Your task to perform on an android device: View the shopping cart on walmart. Add "bose quietcomfort 35" to the cart on walmart, then select checkout. Image 0: 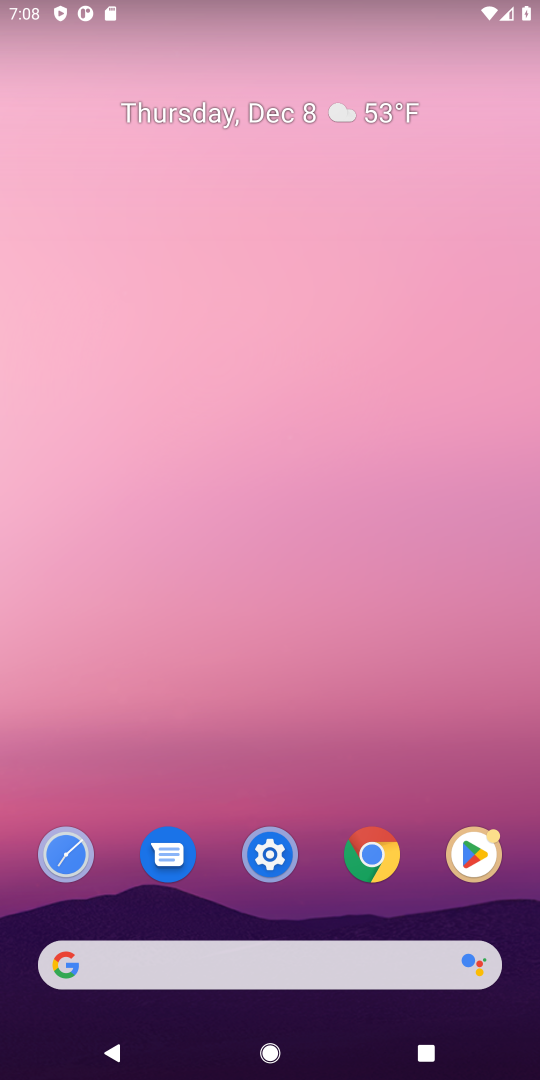
Step 0: press home button
Your task to perform on an android device: View the shopping cart on walmart. Add "bose quietcomfort 35" to the cart on walmart, then select checkout. Image 1: 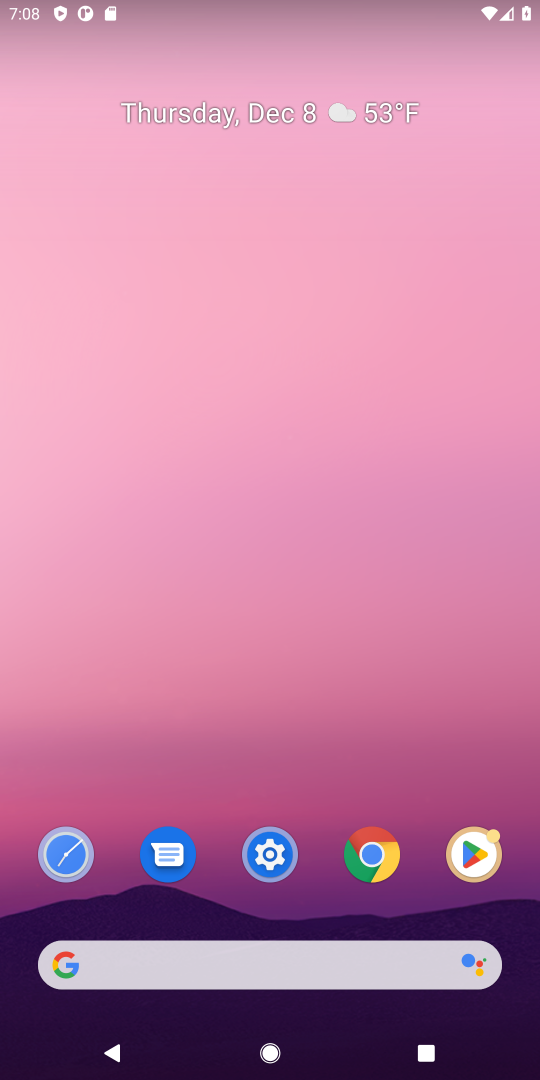
Step 1: click (107, 959)
Your task to perform on an android device: View the shopping cart on walmart. Add "bose quietcomfort 35" to the cart on walmart, then select checkout. Image 2: 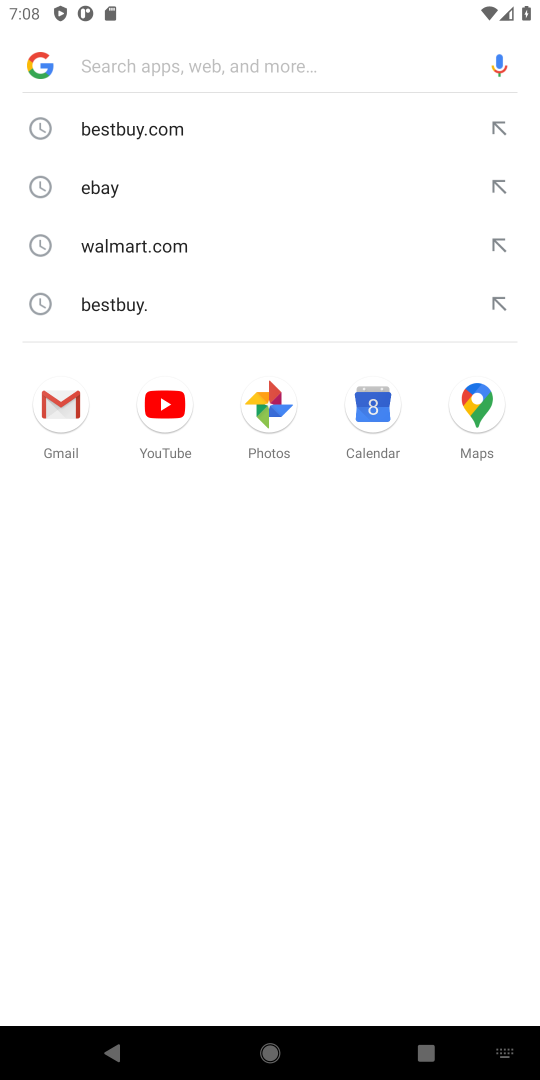
Step 2: type "walmart"
Your task to perform on an android device: View the shopping cart on walmart. Add "bose quietcomfort 35" to the cart on walmart, then select checkout. Image 3: 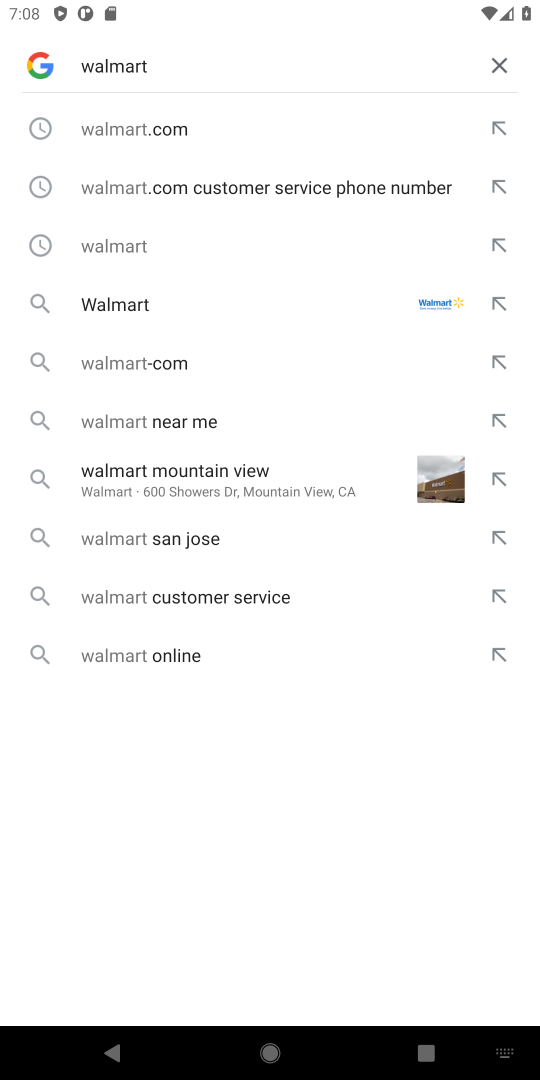
Step 3: press enter
Your task to perform on an android device: View the shopping cart on walmart. Add "bose quietcomfort 35" to the cart on walmart, then select checkout. Image 4: 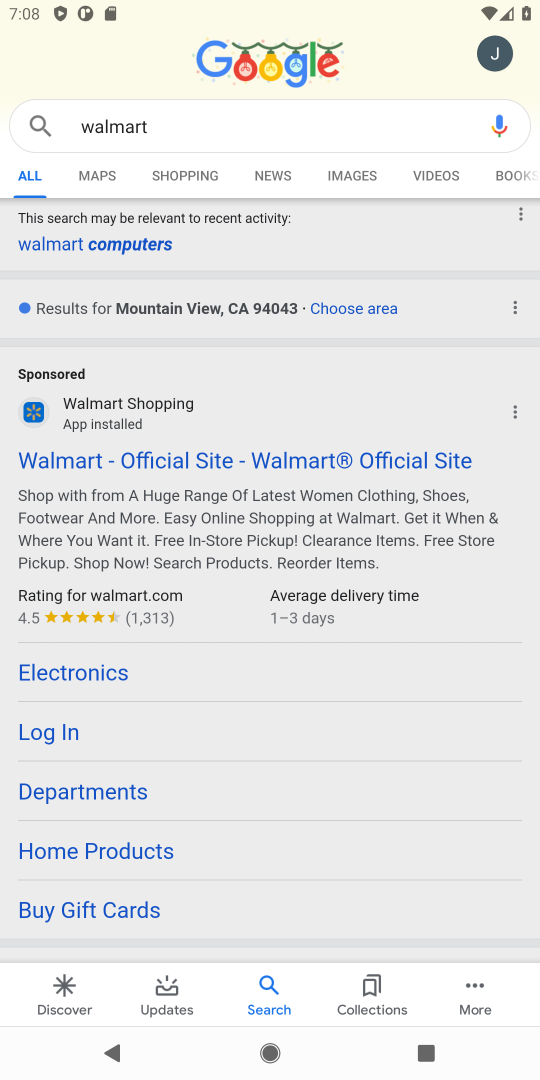
Step 4: click (400, 460)
Your task to perform on an android device: View the shopping cart on walmart. Add "bose quietcomfort 35" to the cart on walmart, then select checkout. Image 5: 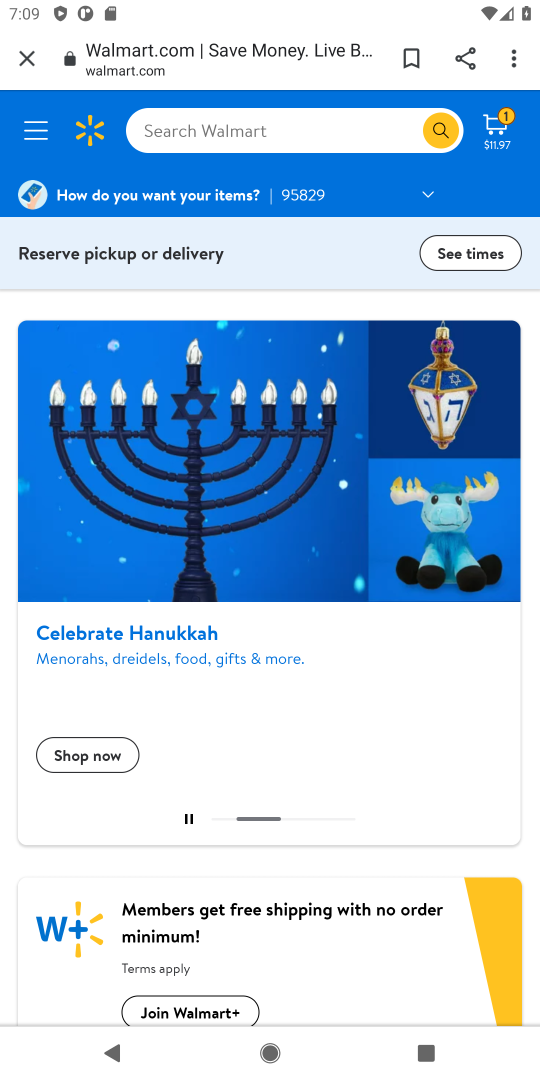
Step 5: click (493, 118)
Your task to perform on an android device: View the shopping cart on walmart. Add "bose quietcomfort 35" to the cart on walmart, then select checkout. Image 6: 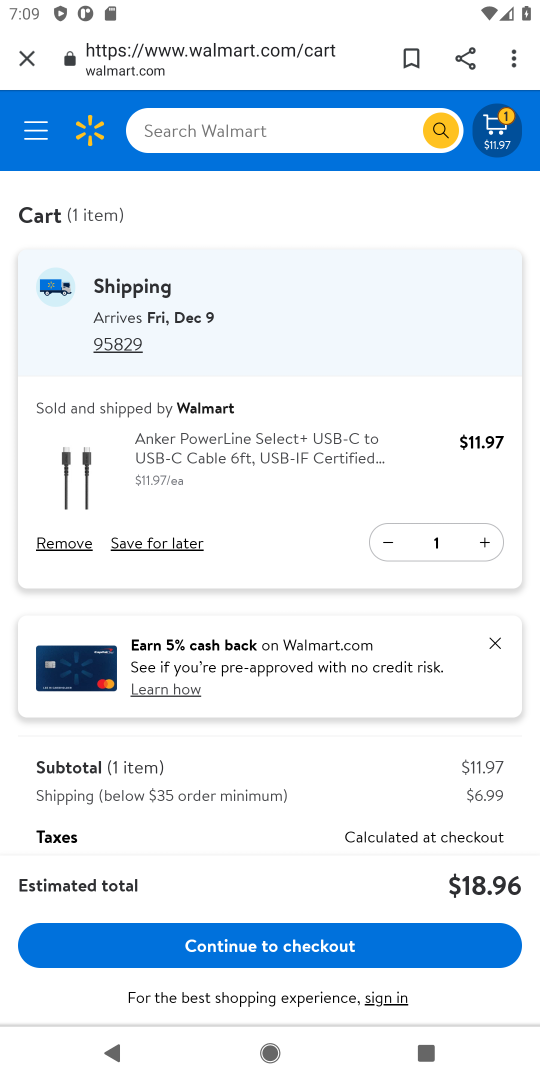
Step 6: click (167, 119)
Your task to perform on an android device: View the shopping cart on walmart. Add "bose quietcomfort 35" to the cart on walmart, then select checkout. Image 7: 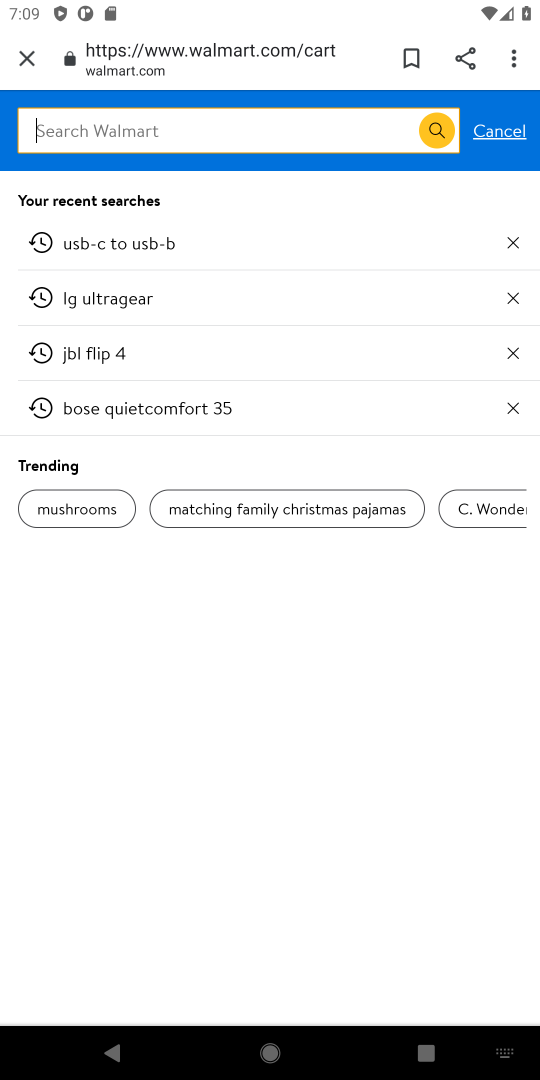
Step 7: type "bose quietcomfort 35"
Your task to perform on an android device: View the shopping cart on walmart. Add "bose quietcomfort 35" to the cart on walmart, then select checkout. Image 8: 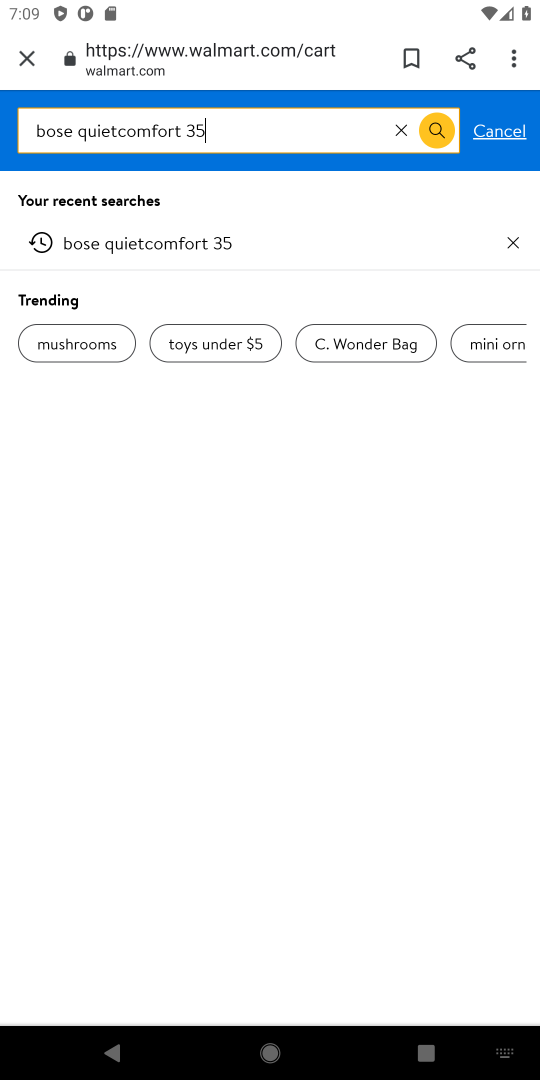
Step 8: press enter
Your task to perform on an android device: View the shopping cart on walmart. Add "bose quietcomfort 35" to the cart on walmart, then select checkout. Image 9: 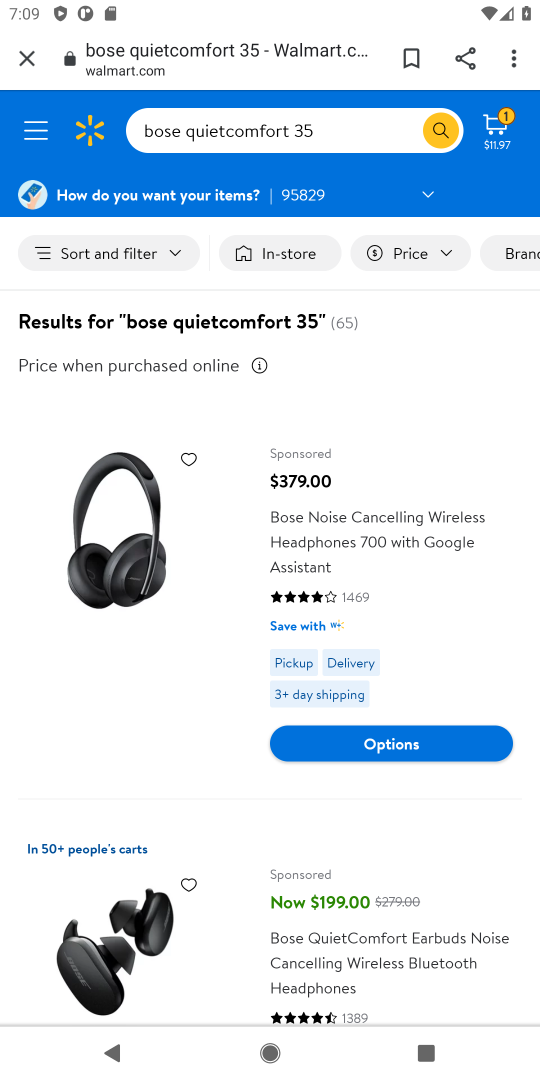
Step 9: drag from (454, 912) to (450, 450)
Your task to perform on an android device: View the shopping cart on walmart. Add "bose quietcomfort 35" to the cart on walmart, then select checkout. Image 10: 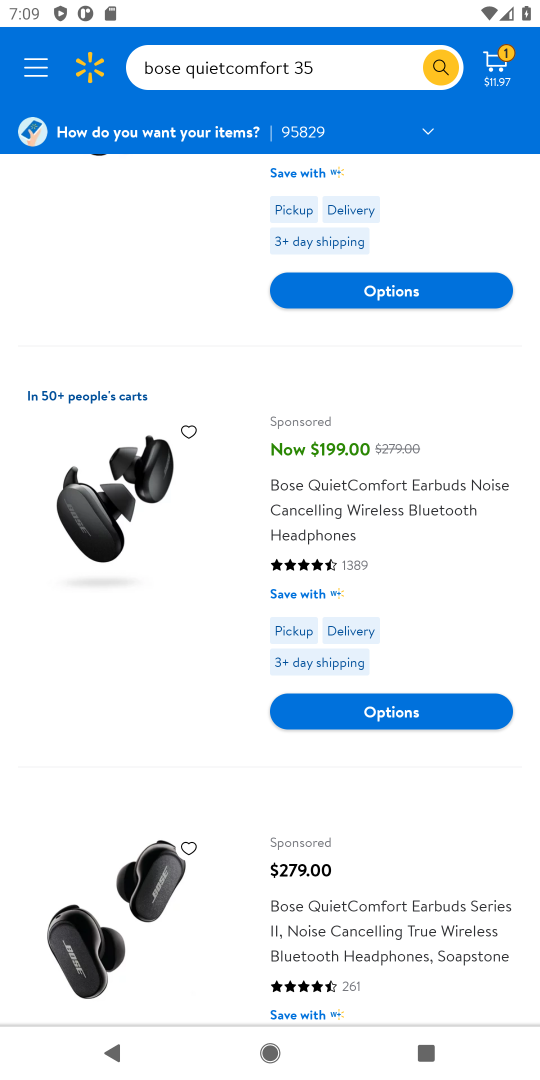
Step 10: drag from (436, 955) to (464, 378)
Your task to perform on an android device: View the shopping cart on walmart. Add "bose quietcomfort 35" to the cart on walmart, then select checkout. Image 11: 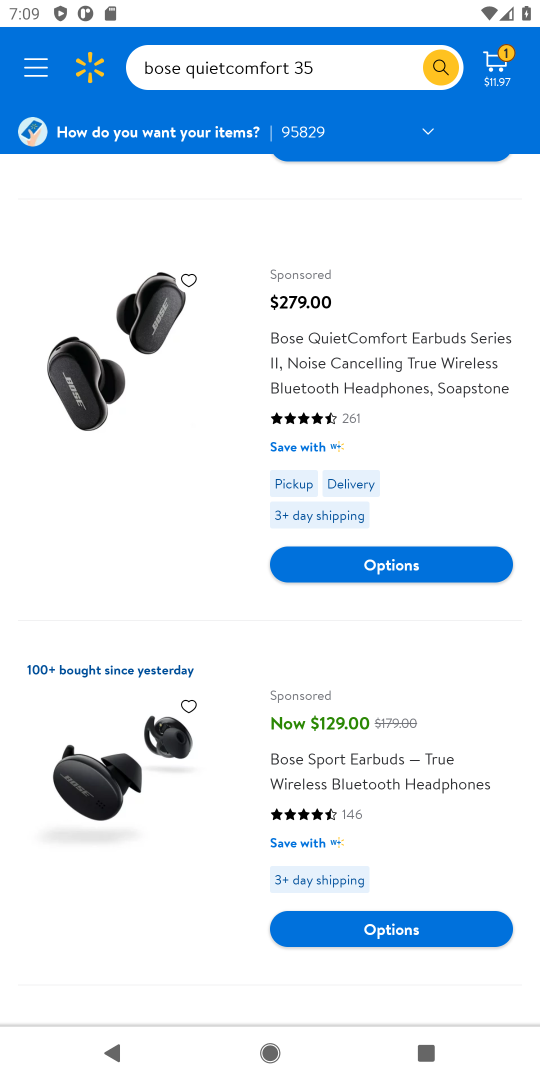
Step 11: drag from (399, 829) to (447, 284)
Your task to perform on an android device: View the shopping cart on walmart. Add "bose quietcomfort 35" to the cart on walmart, then select checkout. Image 12: 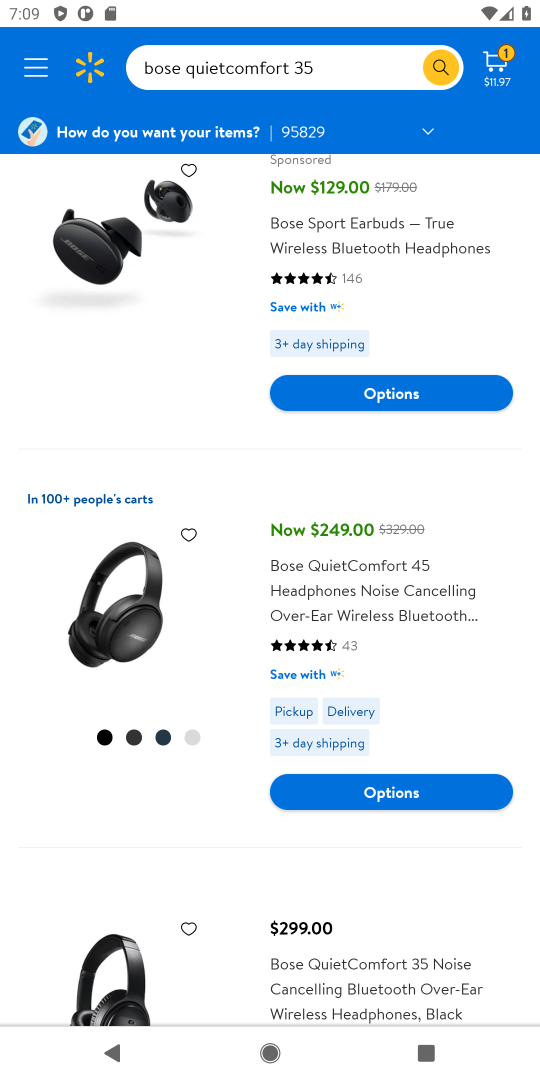
Step 12: drag from (375, 908) to (447, 485)
Your task to perform on an android device: View the shopping cart on walmart. Add "bose quietcomfort 35" to the cart on walmart, then select checkout. Image 13: 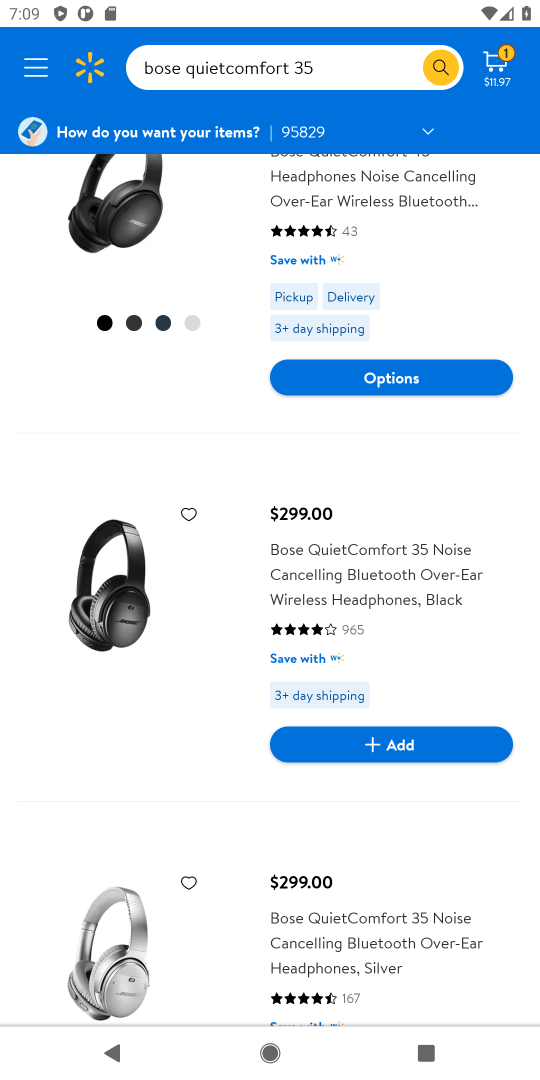
Step 13: click (379, 751)
Your task to perform on an android device: View the shopping cart on walmart. Add "bose quietcomfort 35" to the cart on walmart, then select checkout. Image 14: 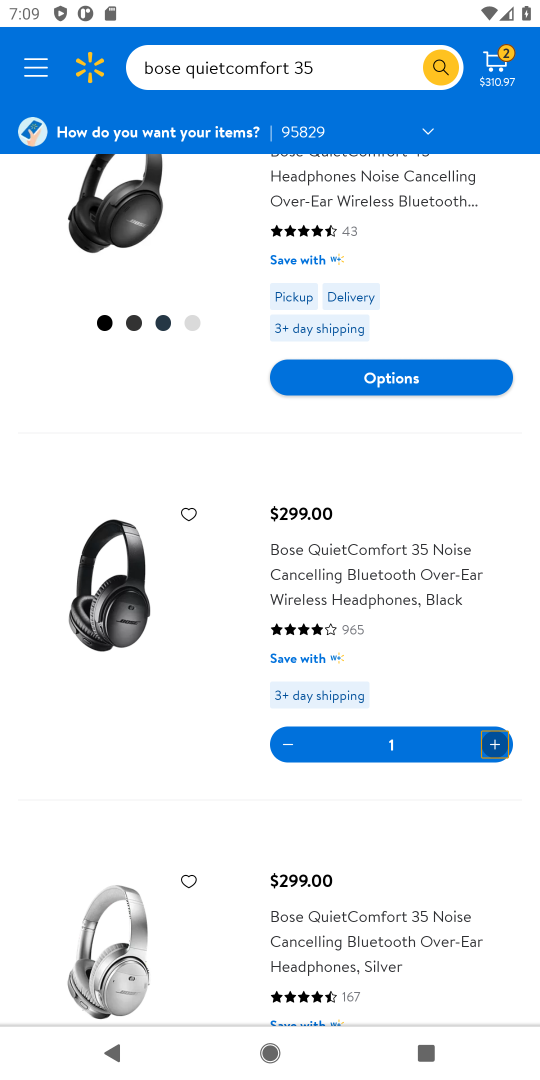
Step 14: click (496, 57)
Your task to perform on an android device: View the shopping cart on walmart. Add "bose quietcomfort 35" to the cart on walmart, then select checkout. Image 15: 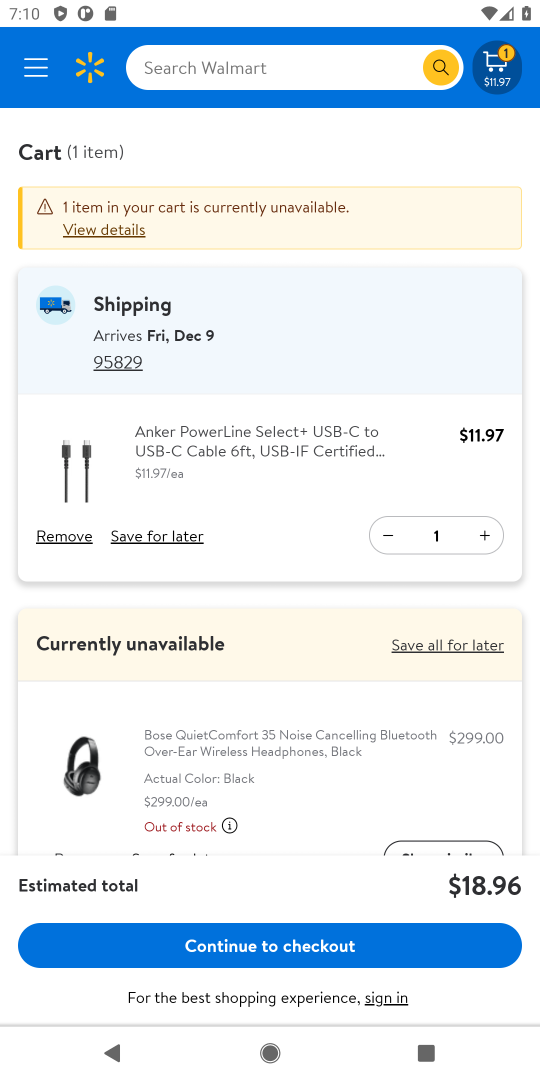
Step 15: click (265, 940)
Your task to perform on an android device: View the shopping cart on walmart. Add "bose quietcomfort 35" to the cart on walmart, then select checkout. Image 16: 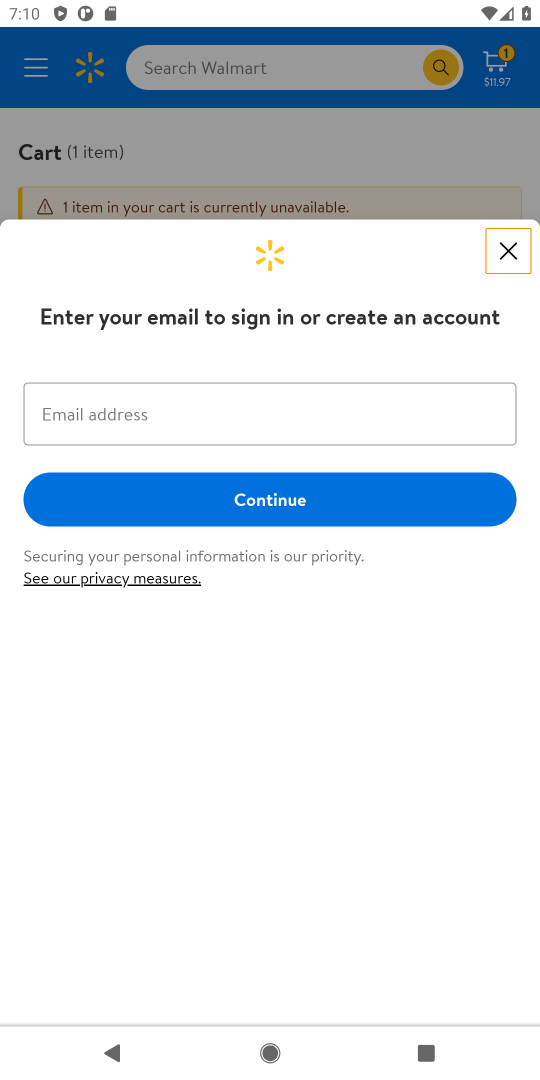
Step 16: task complete